Your task to perform on an android device: Open Youtube and go to the subscriptions tab Image 0: 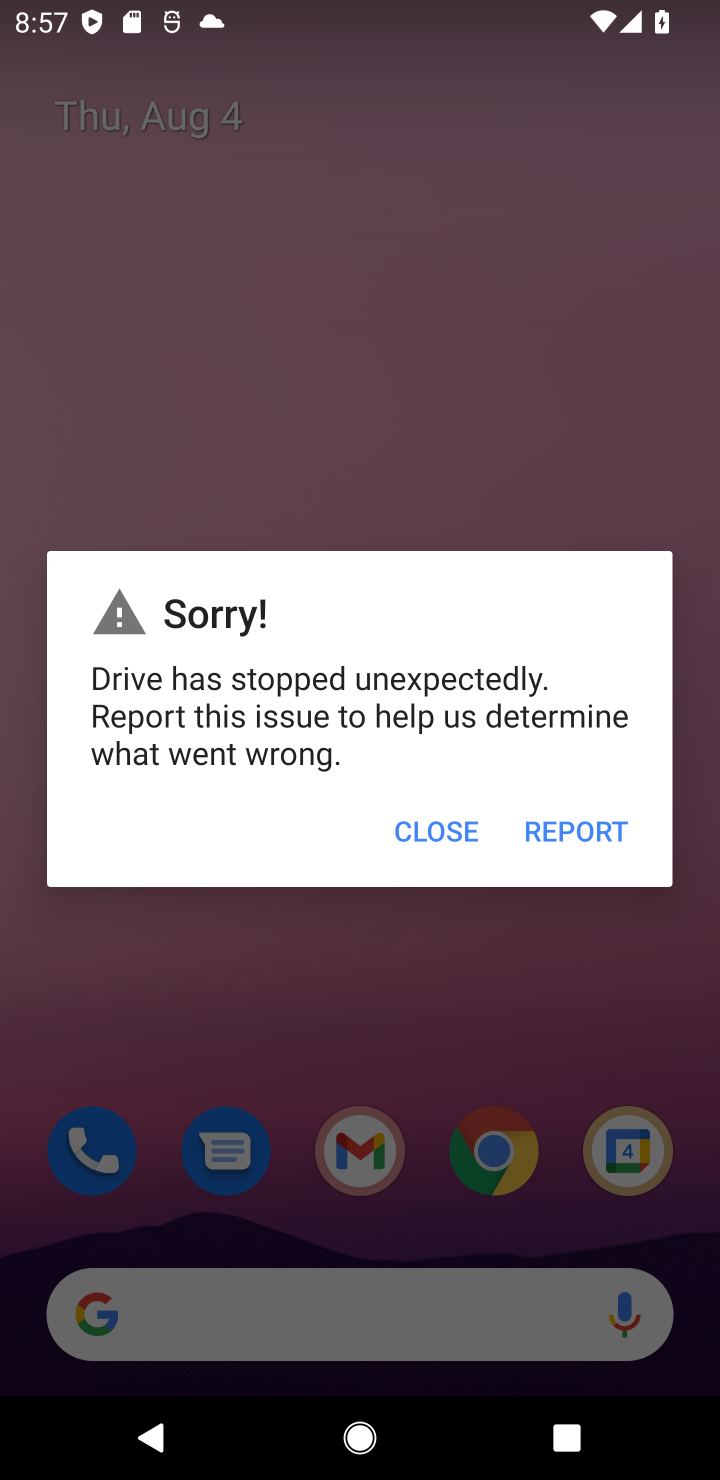
Step 0: click (599, 1086)
Your task to perform on an android device: Open Youtube and go to the subscriptions tab Image 1: 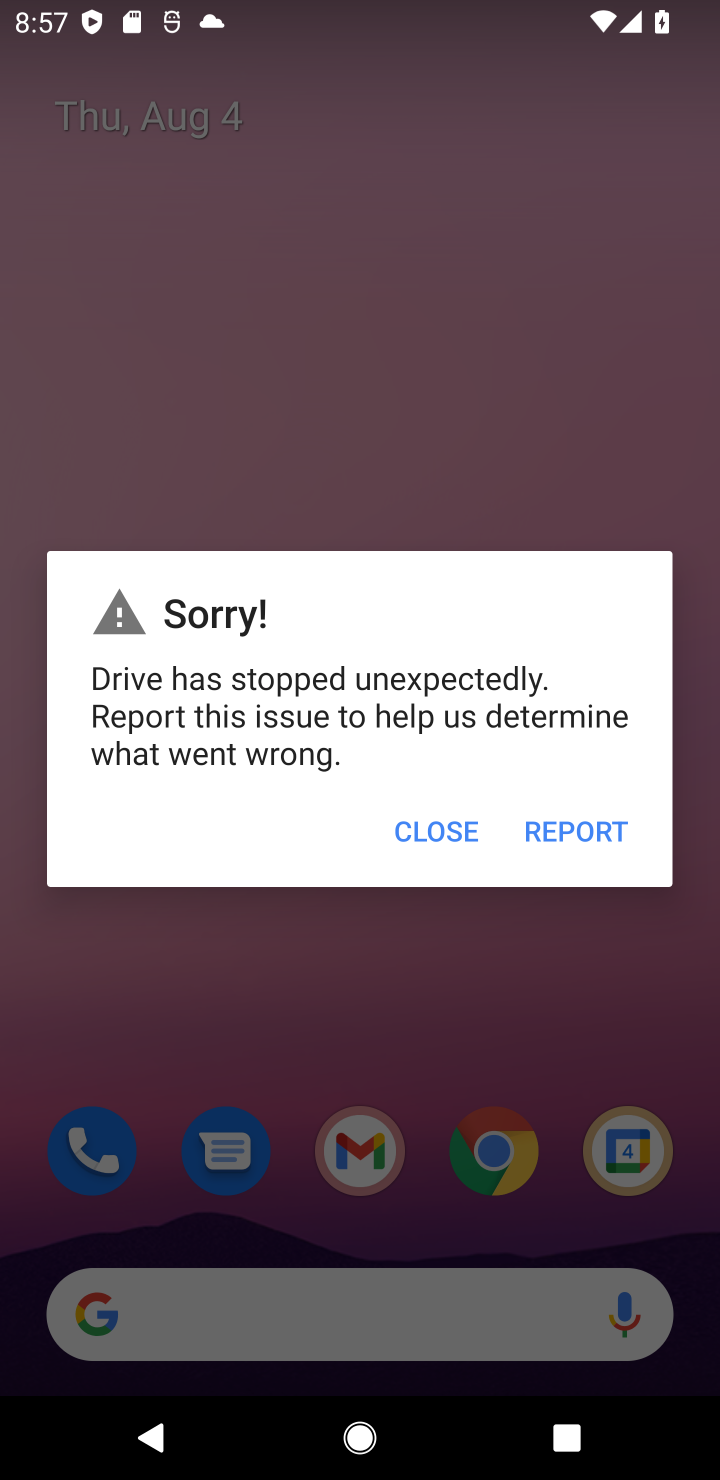
Step 1: click (452, 845)
Your task to perform on an android device: Open Youtube and go to the subscriptions tab Image 2: 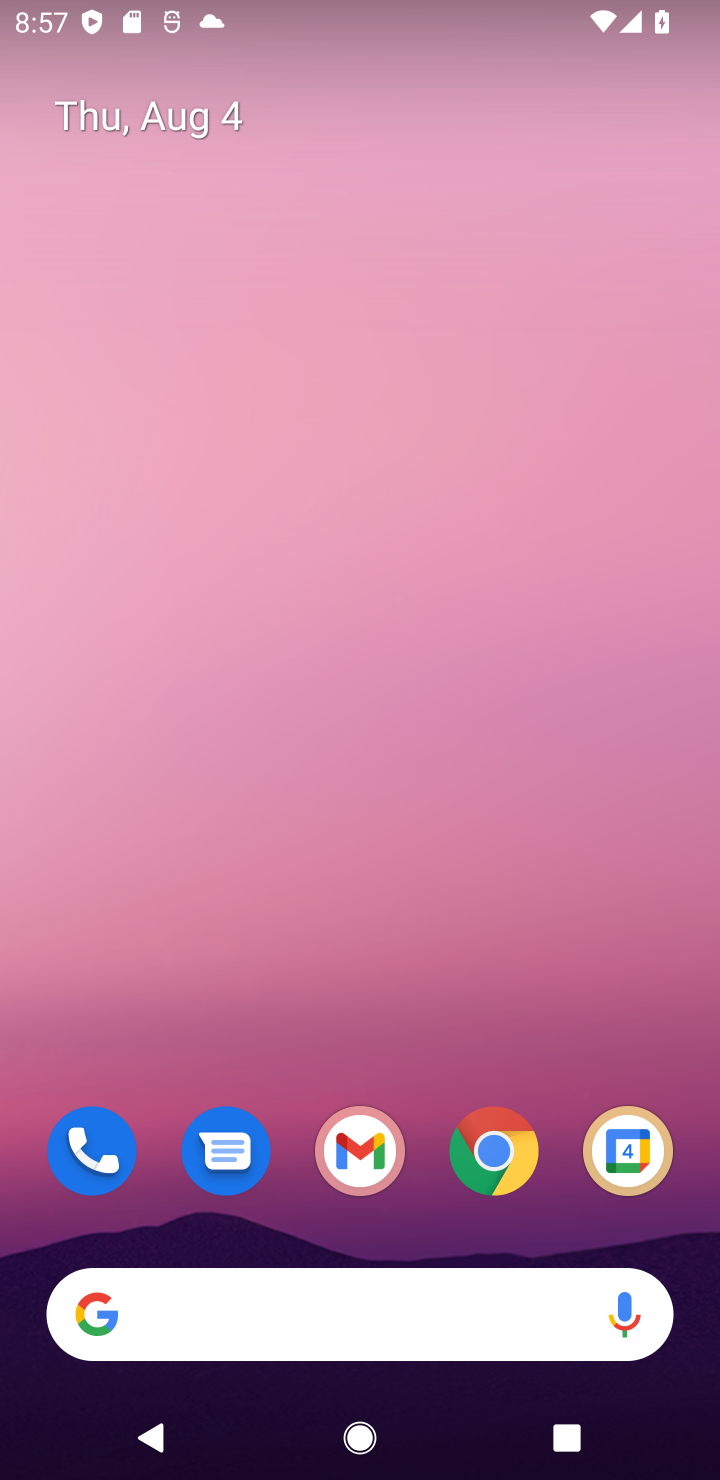
Step 2: drag from (572, 1012) to (477, 148)
Your task to perform on an android device: Open Youtube and go to the subscriptions tab Image 3: 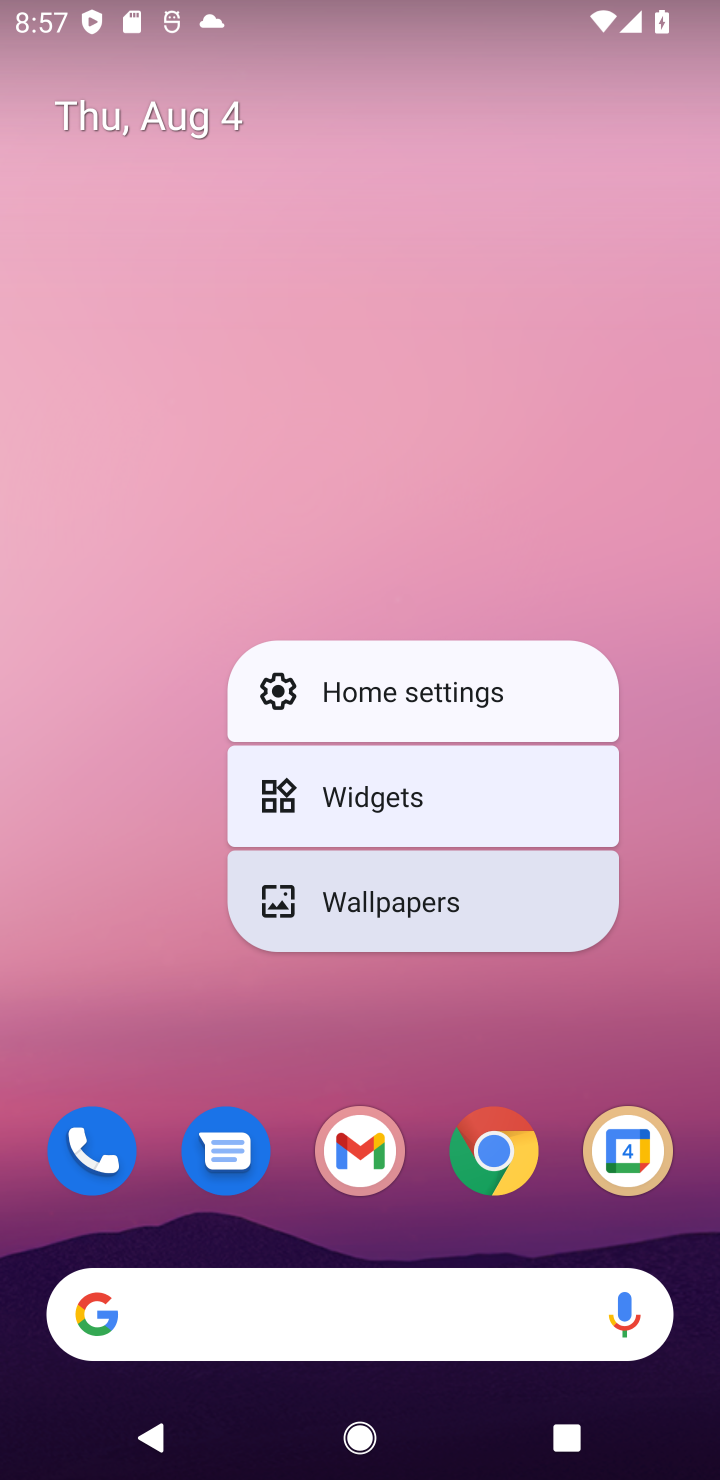
Step 3: drag from (686, 1081) to (544, 0)
Your task to perform on an android device: Open Youtube and go to the subscriptions tab Image 4: 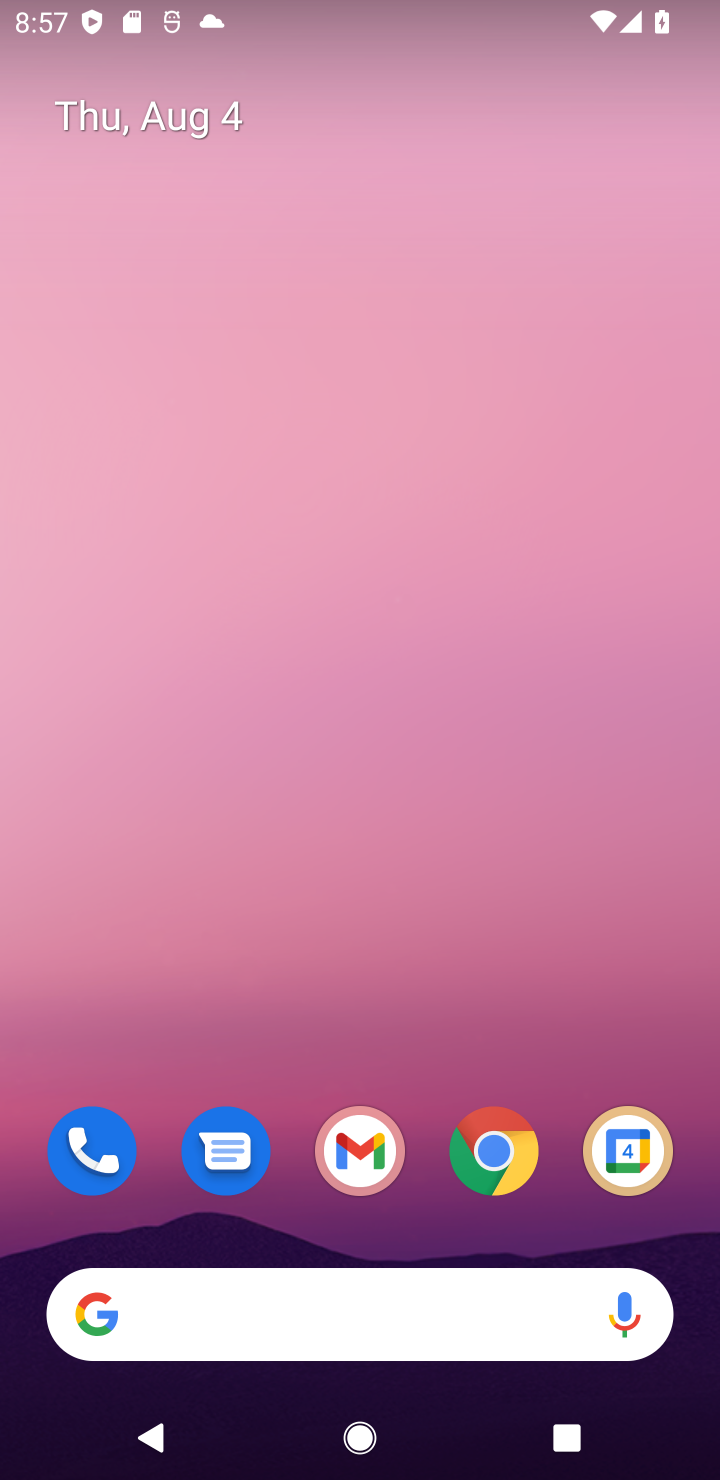
Step 4: drag from (270, 1241) to (684, 708)
Your task to perform on an android device: Open Youtube and go to the subscriptions tab Image 5: 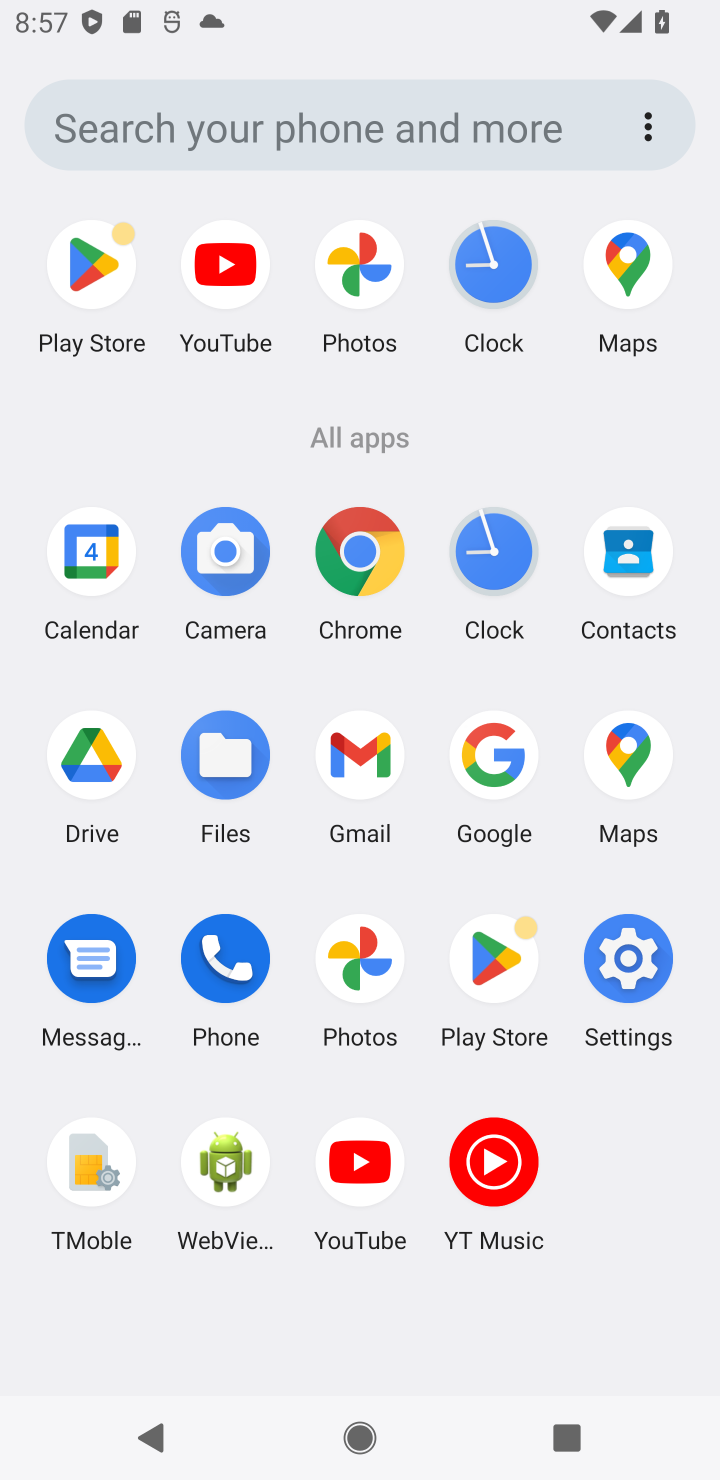
Step 5: click (365, 1185)
Your task to perform on an android device: Open Youtube and go to the subscriptions tab Image 6: 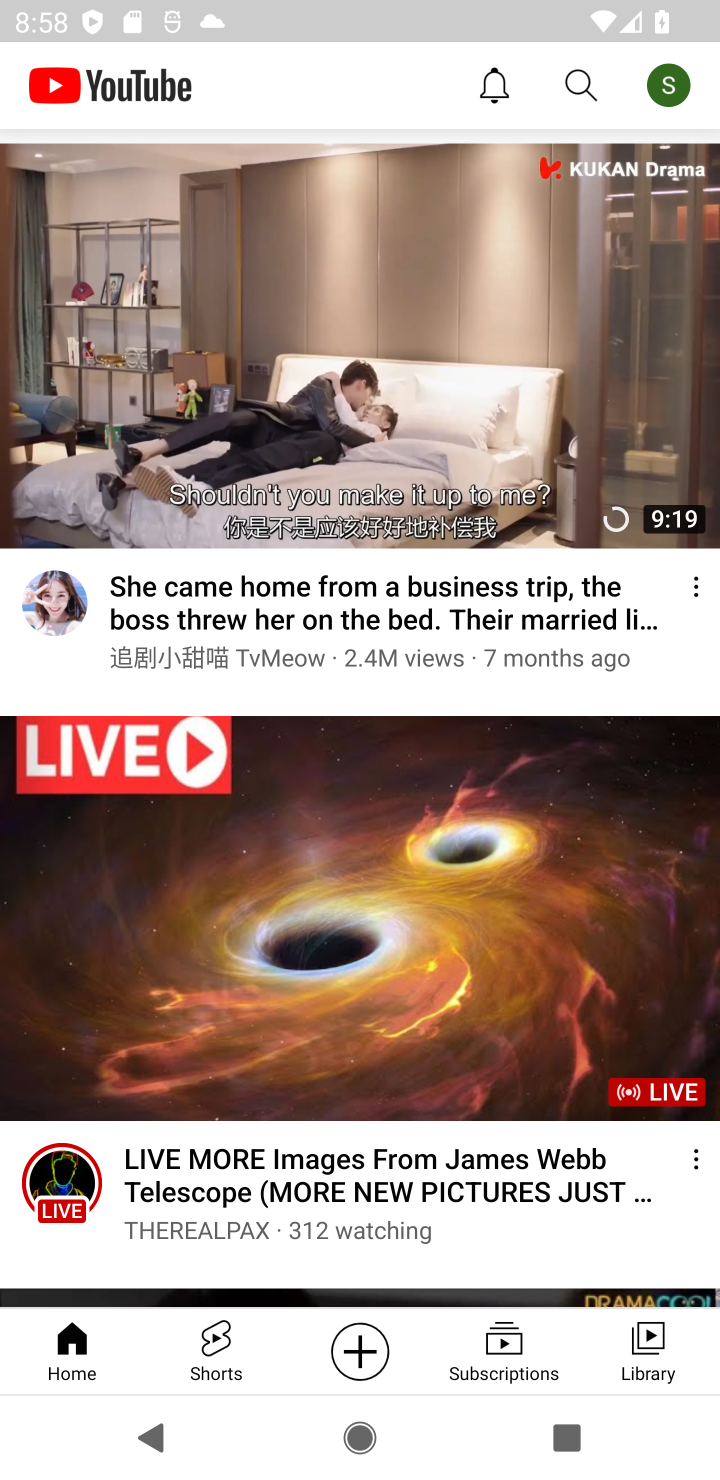
Step 6: click (670, 75)
Your task to perform on an android device: Open Youtube and go to the subscriptions tab Image 7: 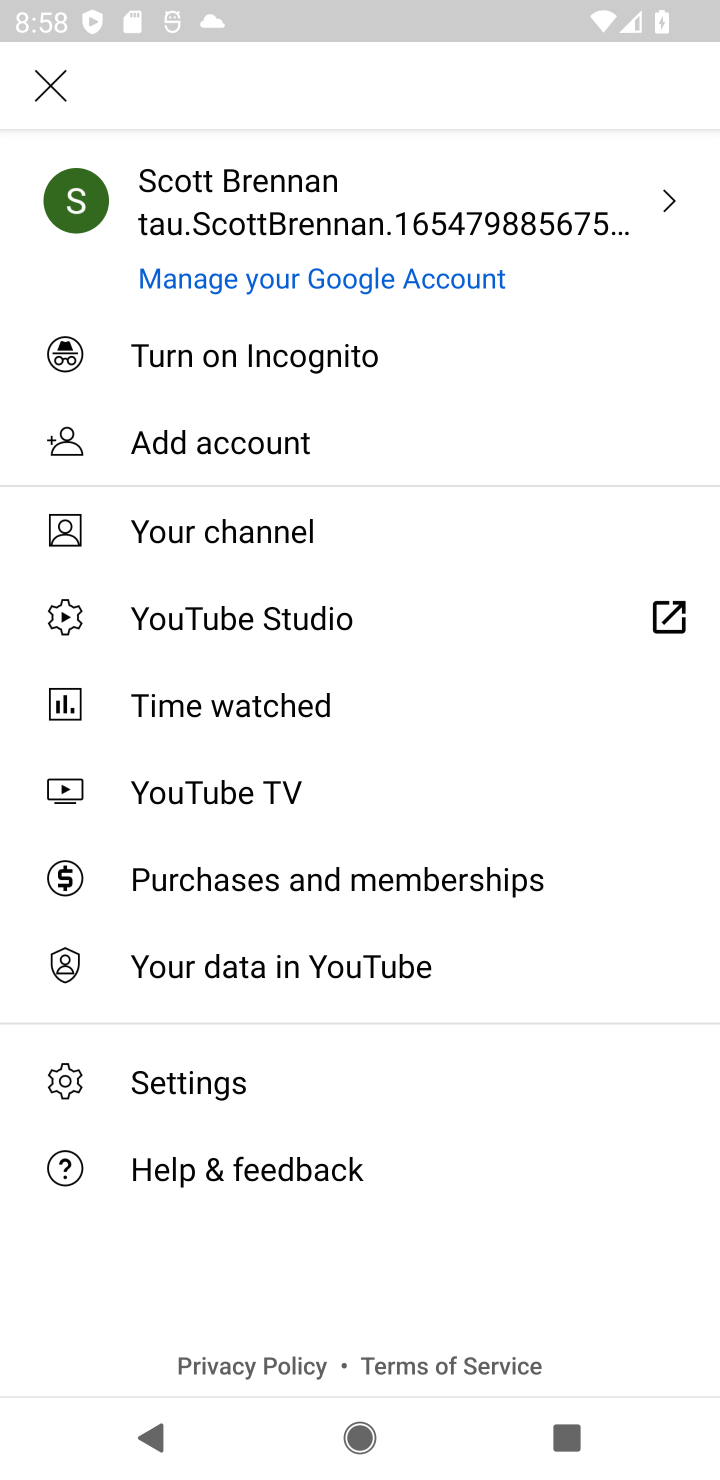
Step 7: click (59, 86)
Your task to perform on an android device: Open Youtube and go to the subscriptions tab Image 8: 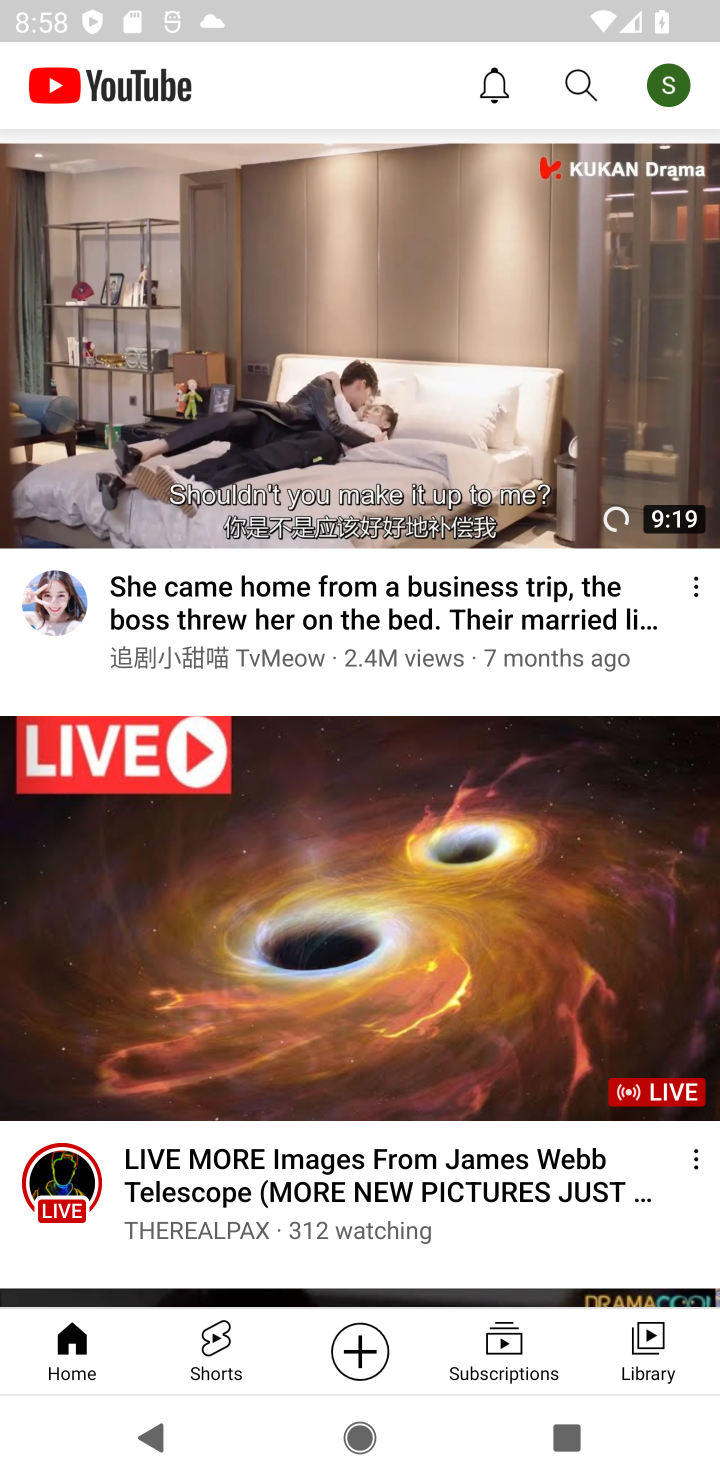
Step 8: click (511, 1342)
Your task to perform on an android device: Open Youtube and go to the subscriptions tab Image 9: 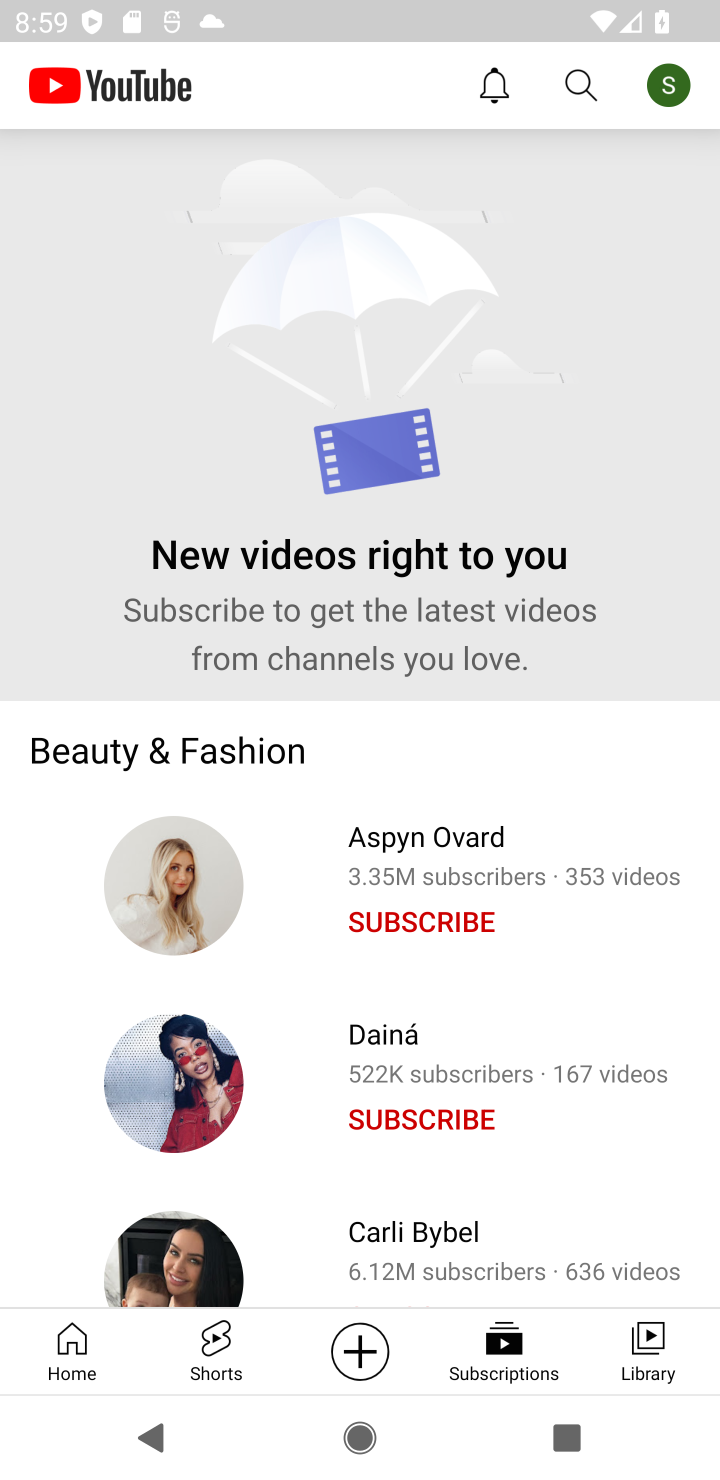
Step 9: task complete